Your task to perform on an android device: Go to privacy settings Image 0: 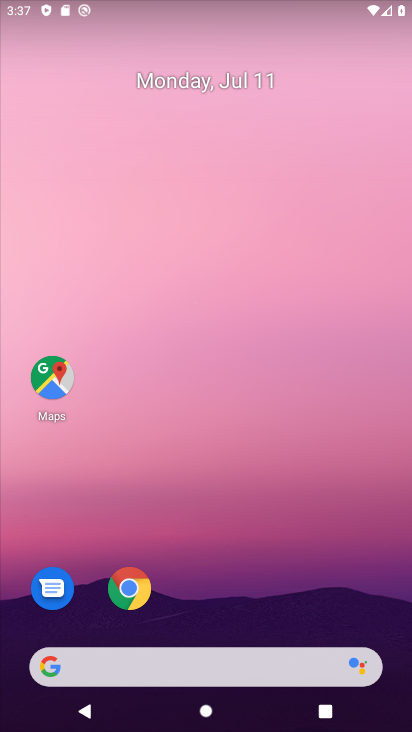
Step 0: press home button
Your task to perform on an android device: Go to privacy settings Image 1: 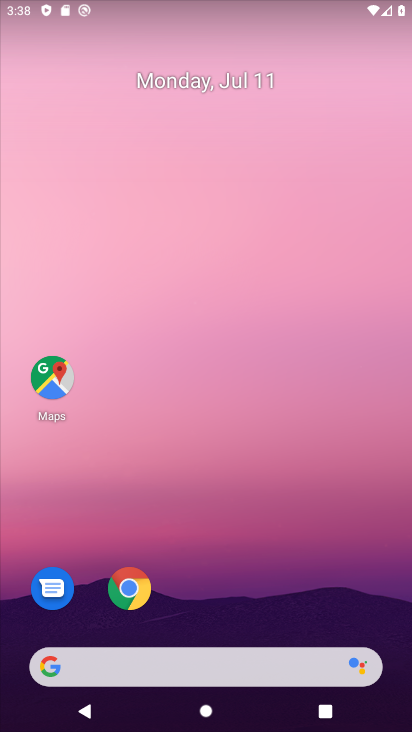
Step 1: drag from (284, 636) to (227, 139)
Your task to perform on an android device: Go to privacy settings Image 2: 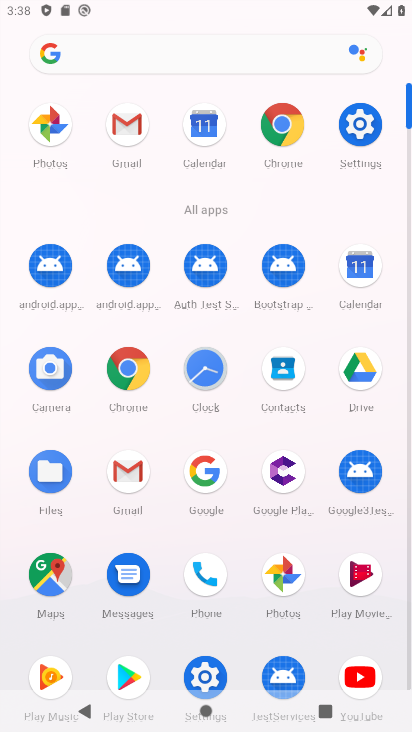
Step 2: click (353, 129)
Your task to perform on an android device: Go to privacy settings Image 3: 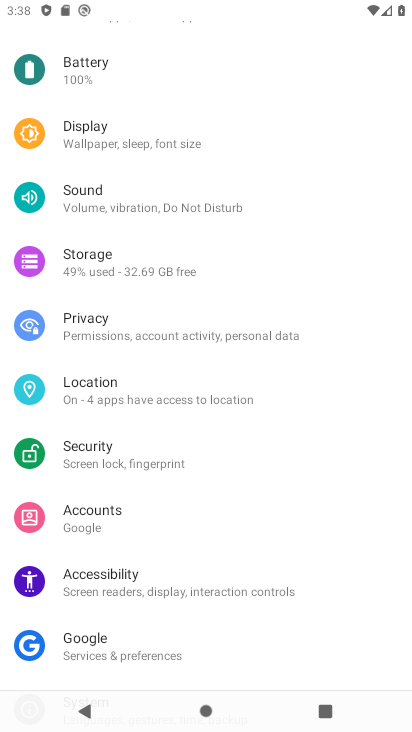
Step 3: click (94, 335)
Your task to perform on an android device: Go to privacy settings Image 4: 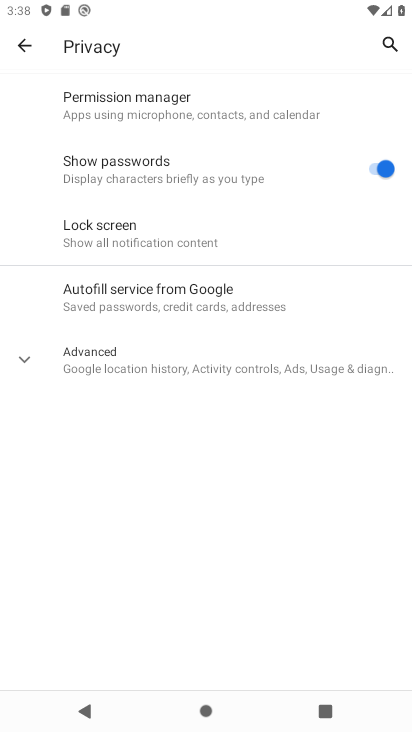
Step 4: task complete